Your task to perform on an android device: Go to Maps Image 0: 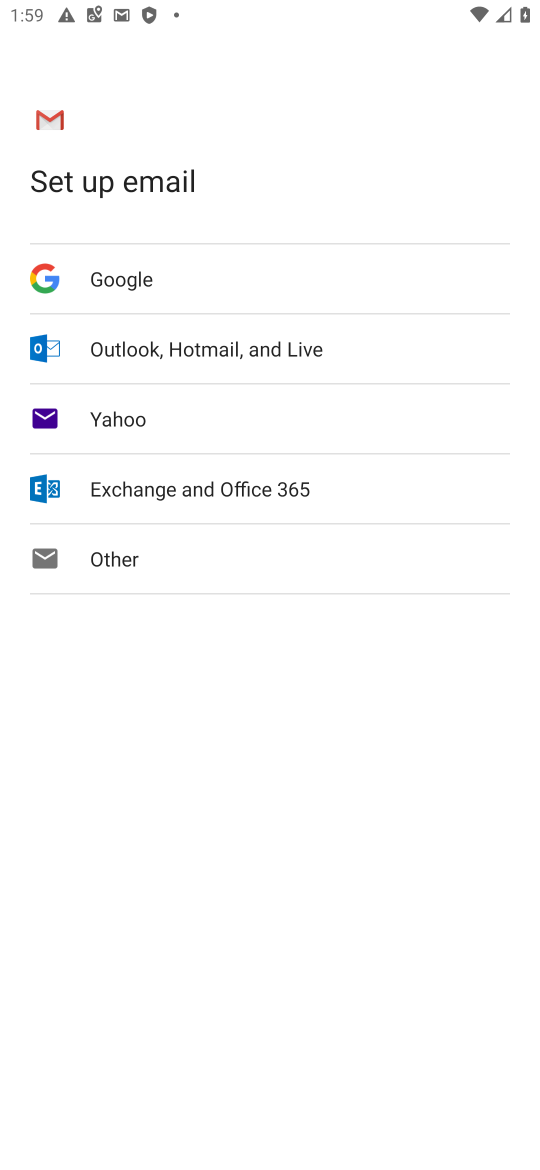
Step 0: press home button
Your task to perform on an android device: Go to Maps Image 1: 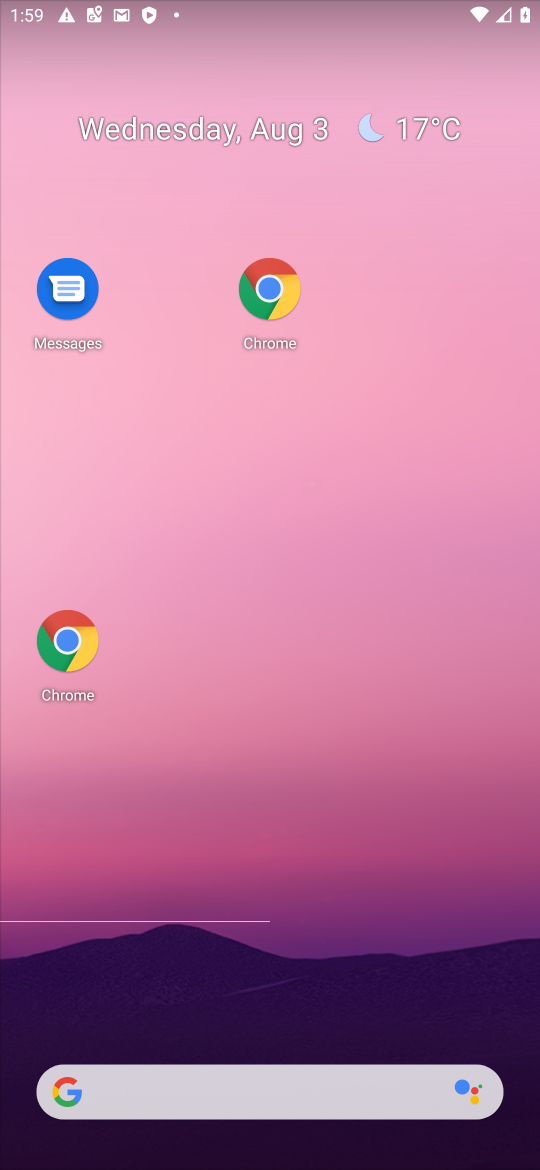
Step 1: drag from (384, 996) to (382, 345)
Your task to perform on an android device: Go to Maps Image 2: 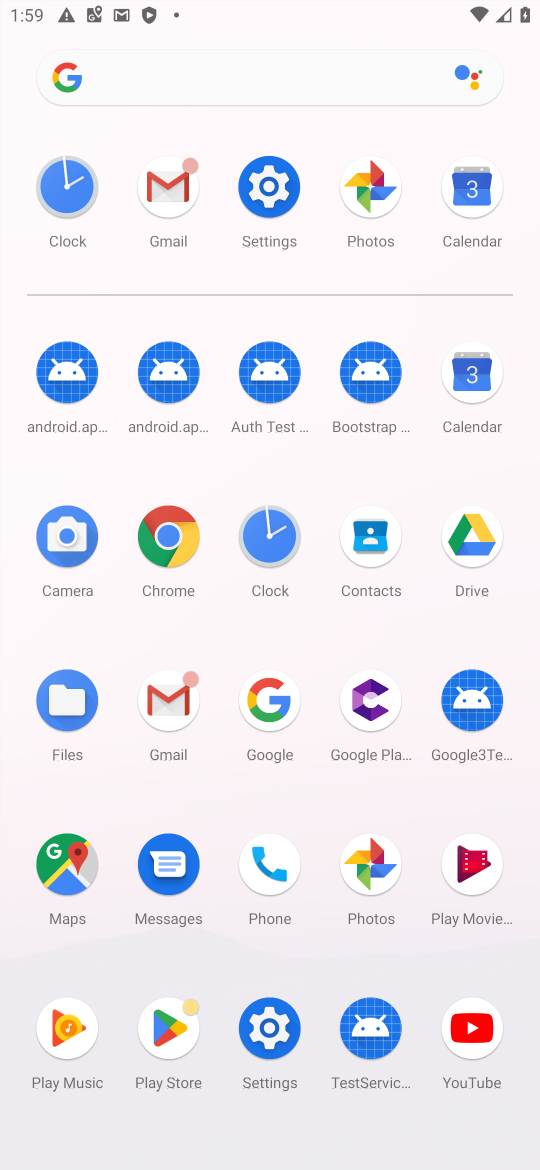
Step 2: click (65, 878)
Your task to perform on an android device: Go to Maps Image 3: 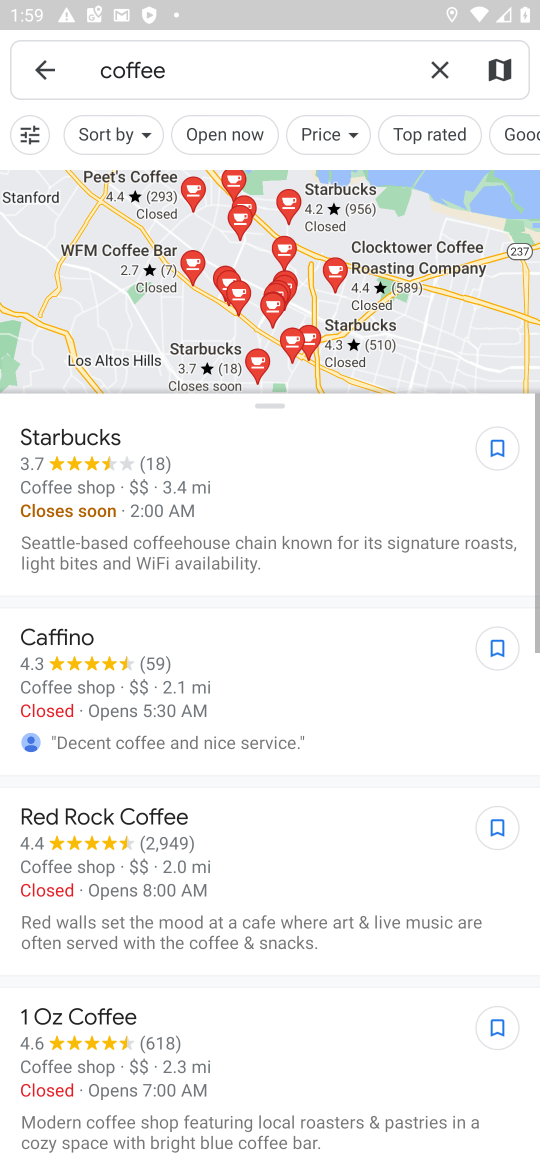
Step 3: task complete